Your task to perform on an android device: Search for sushi restaurants on Maps Image 0: 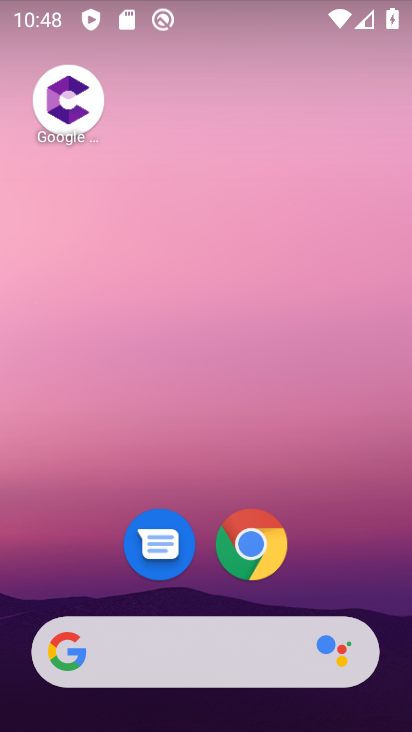
Step 0: drag from (199, 598) to (265, 42)
Your task to perform on an android device: Search for sushi restaurants on Maps Image 1: 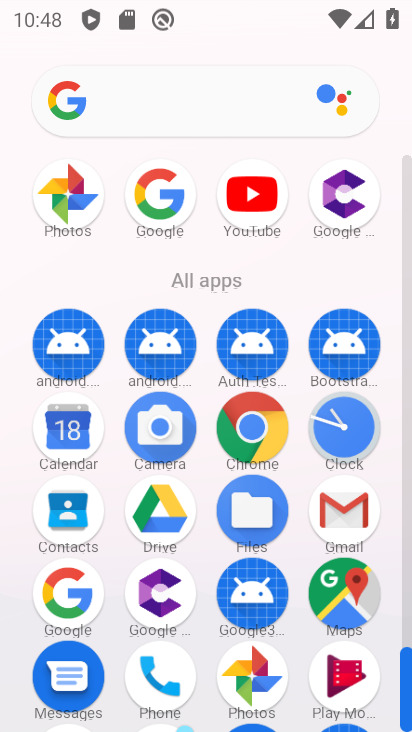
Step 1: drag from (297, 579) to (320, 287)
Your task to perform on an android device: Search for sushi restaurants on Maps Image 2: 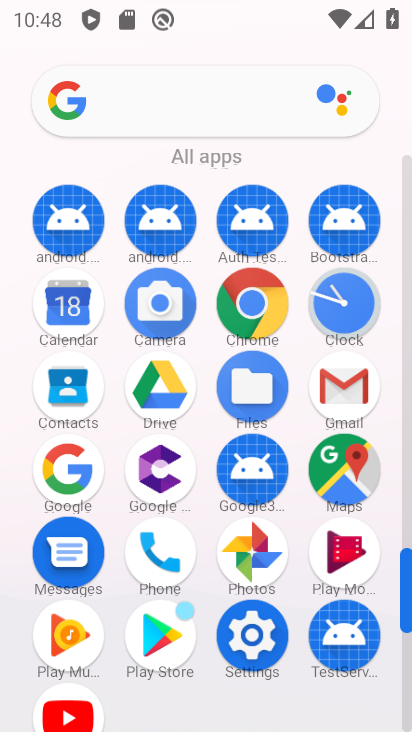
Step 2: click (343, 471)
Your task to perform on an android device: Search for sushi restaurants on Maps Image 3: 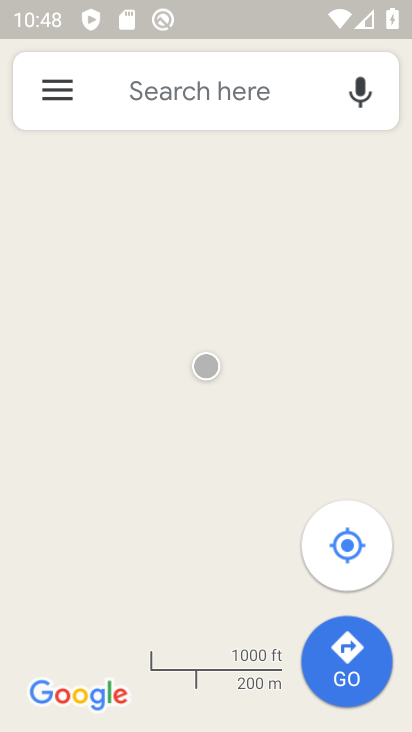
Step 3: click (194, 110)
Your task to perform on an android device: Search for sushi restaurants on Maps Image 4: 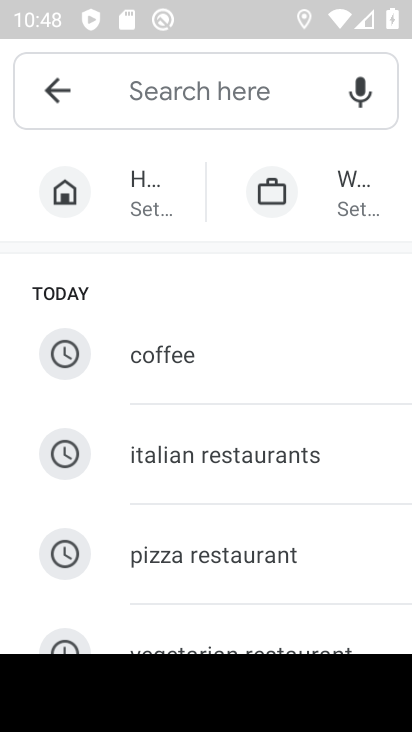
Step 4: type "sushi restaurants"
Your task to perform on an android device: Search for sushi restaurants on Maps Image 5: 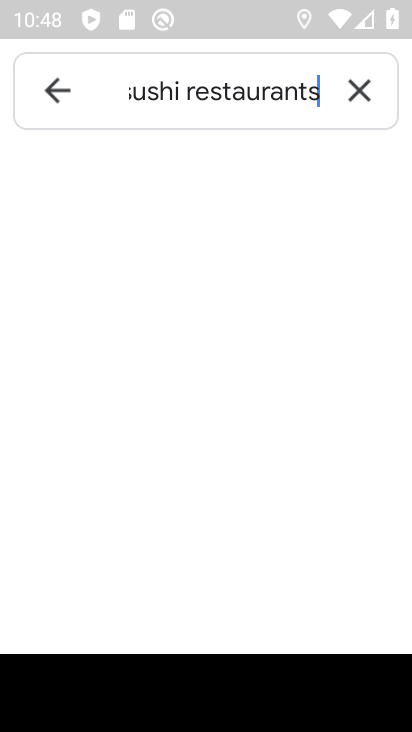
Step 5: type ""
Your task to perform on an android device: Search for sushi restaurants on Maps Image 6: 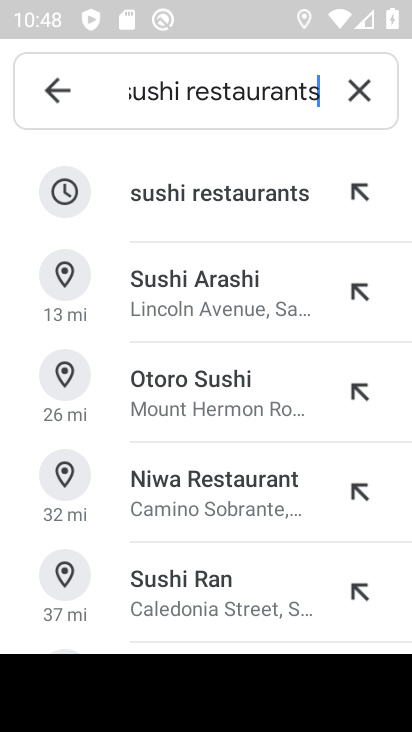
Step 6: click (189, 201)
Your task to perform on an android device: Search for sushi restaurants on Maps Image 7: 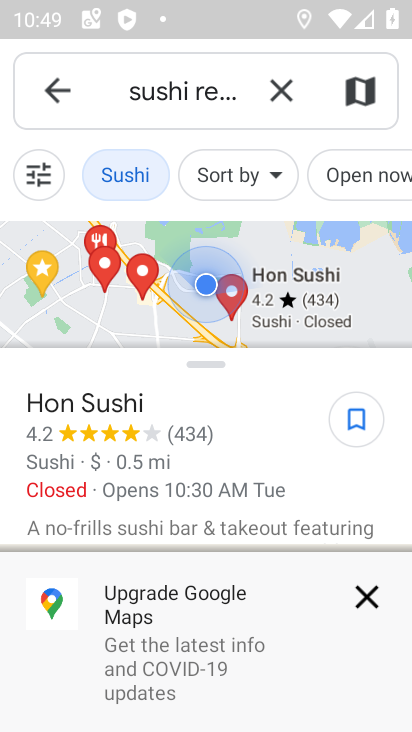
Step 7: task complete